Your task to perform on an android device: Open accessibility settings Image 0: 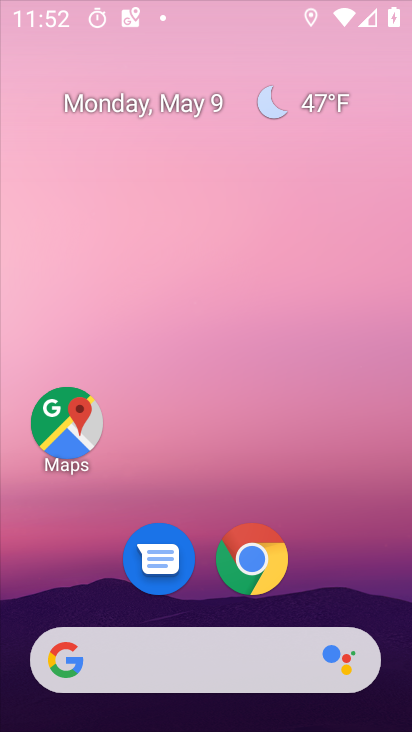
Step 0: drag from (320, 582) to (312, 2)
Your task to perform on an android device: Open accessibility settings Image 1: 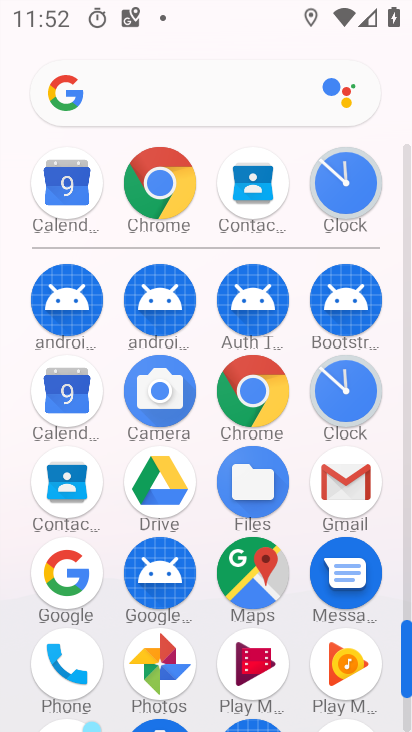
Step 1: drag from (407, 633) to (392, 718)
Your task to perform on an android device: Open accessibility settings Image 2: 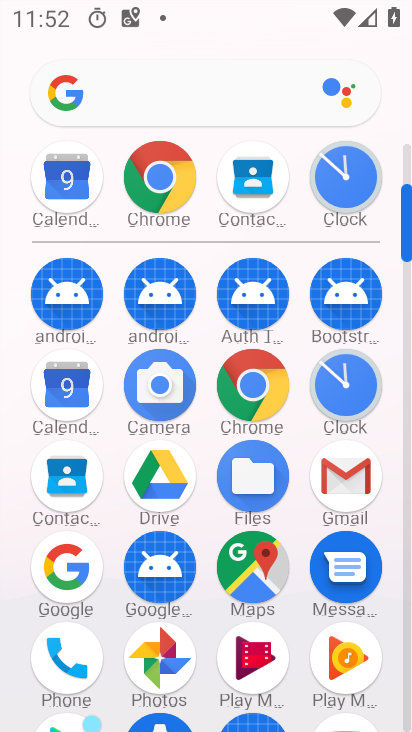
Step 2: drag from (342, 635) to (257, 130)
Your task to perform on an android device: Open accessibility settings Image 3: 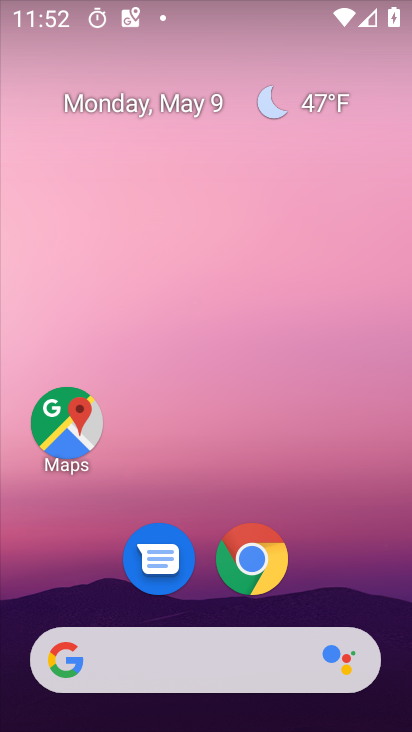
Step 3: drag from (371, 596) to (330, 245)
Your task to perform on an android device: Open accessibility settings Image 4: 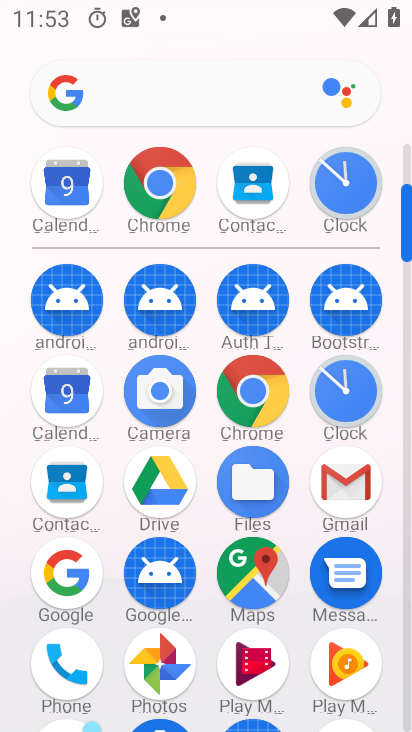
Step 4: drag from (300, 621) to (312, 190)
Your task to perform on an android device: Open accessibility settings Image 5: 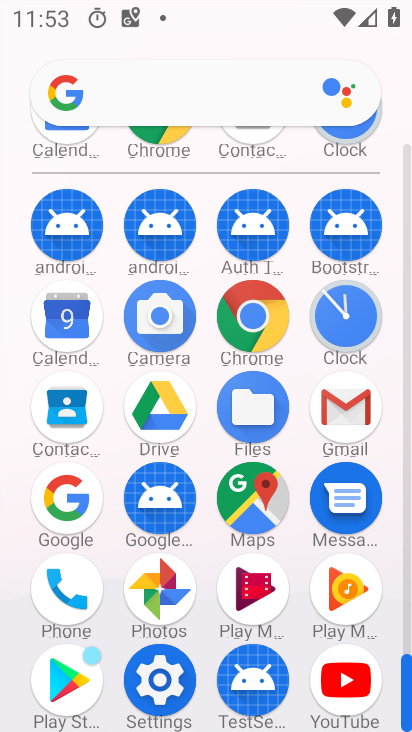
Step 5: click (183, 659)
Your task to perform on an android device: Open accessibility settings Image 6: 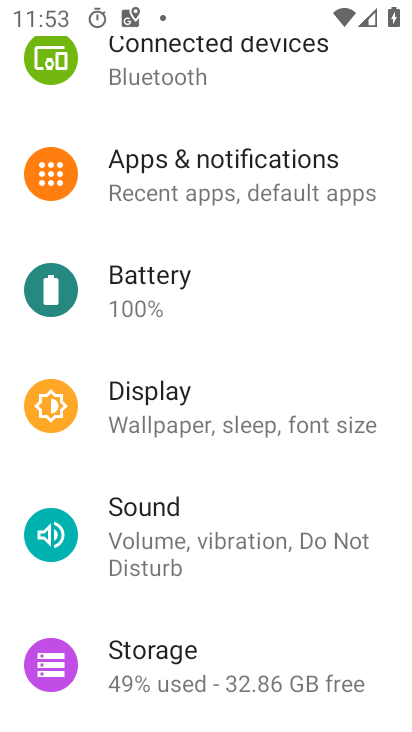
Step 6: drag from (270, 624) to (263, 196)
Your task to perform on an android device: Open accessibility settings Image 7: 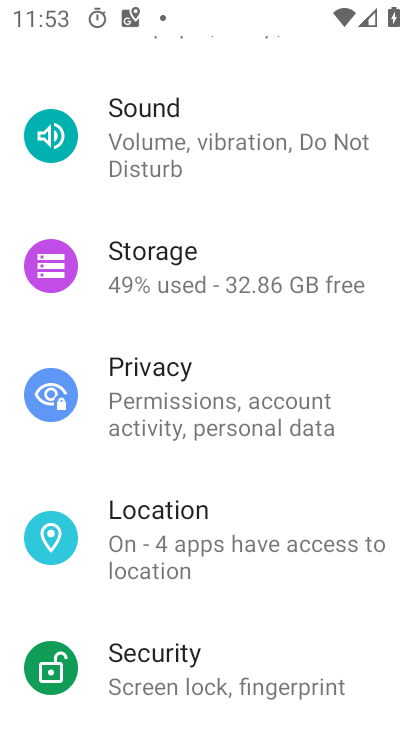
Step 7: drag from (272, 521) to (249, 131)
Your task to perform on an android device: Open accessibility settings Image 8: 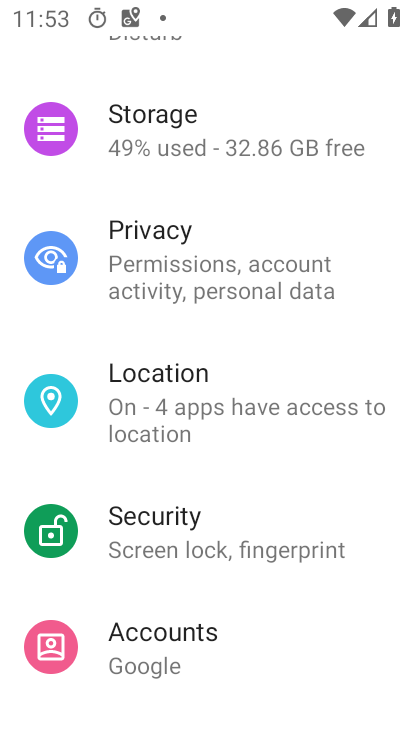
Step 8: drag from (251, 497) to (241, 128)
Your task to perform on an android device: Open accessibility settings Image 9: 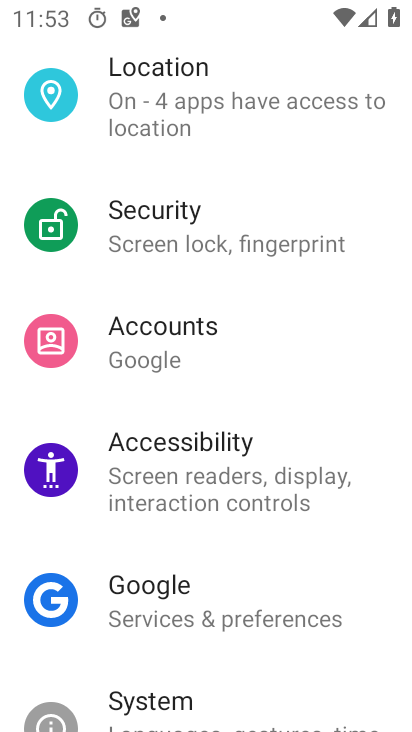
Step 9: drag from (242, 414) to (242, 236)
Your task to perform on an android device: Open accessibility settings Image 10: 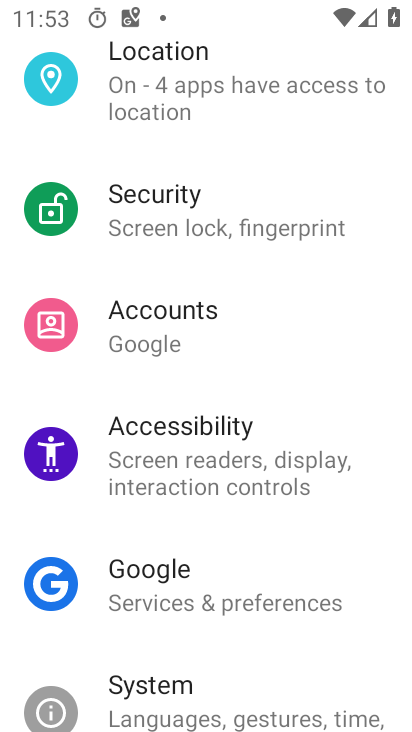
Step 10: drag from (233, 562) to (244, 298)
Your task to perform on an android device: Open accessibility settings Image 11: 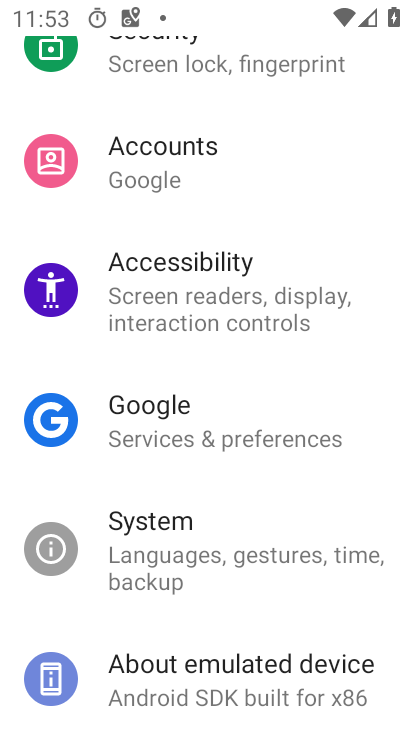
Step 11: click (208, 302)
Your task to perform on an android device: Open accessibility settings Image 12: 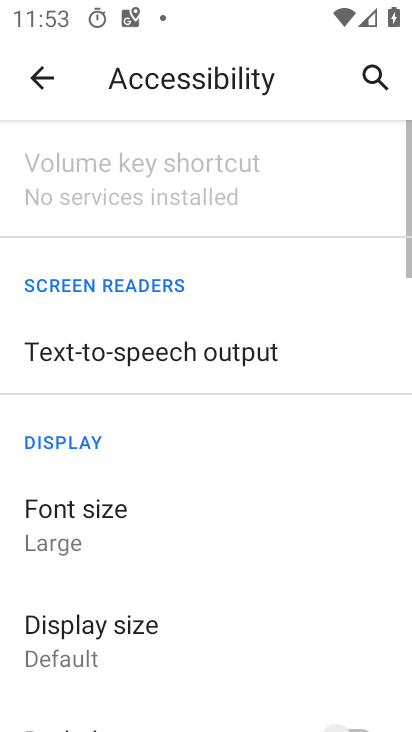
Step 12: task complete